Your task to perform on an android device: turn off location history Image 0: 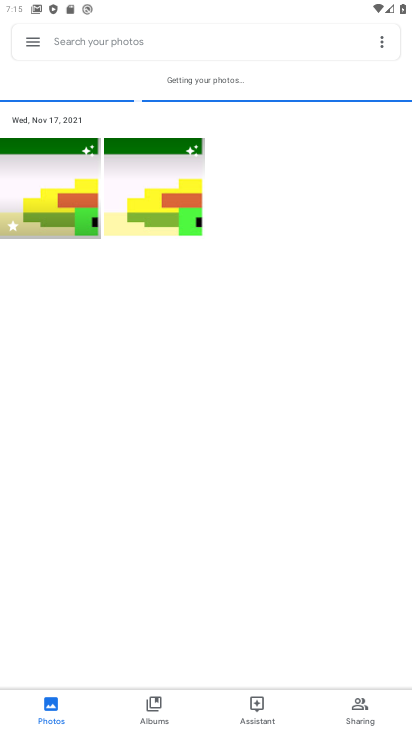
Step 0: press home button
Your task to perform on an android device: turn off location history Image 1: 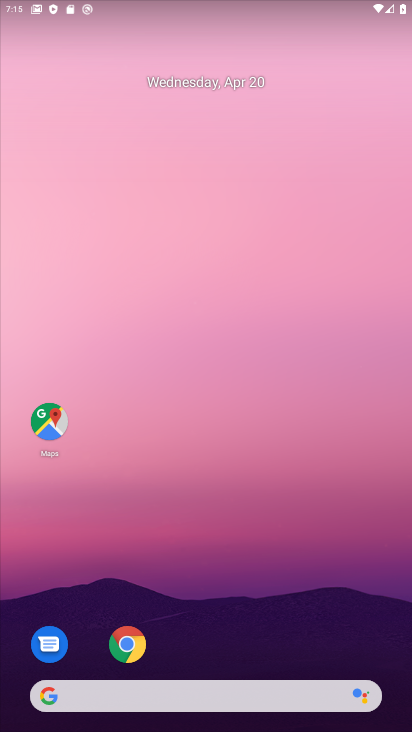
Step 1: drag from (306, 636) to (216, 44)
Your task to perform on an android device: turn off location history Image 2: 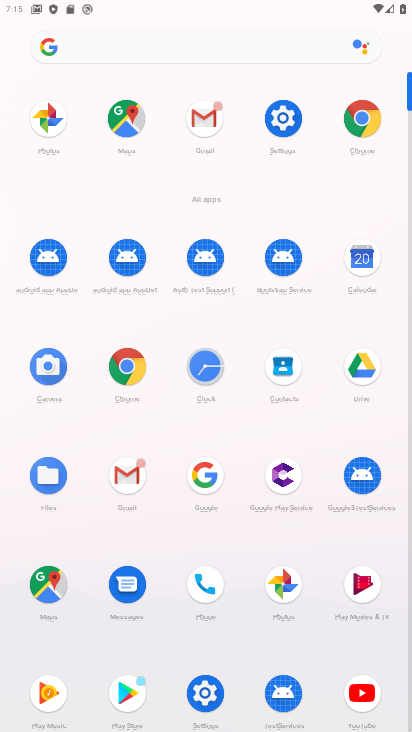
Step 2: click (286, 113)
Your task to perform on an android device: turn off location history Image 3: 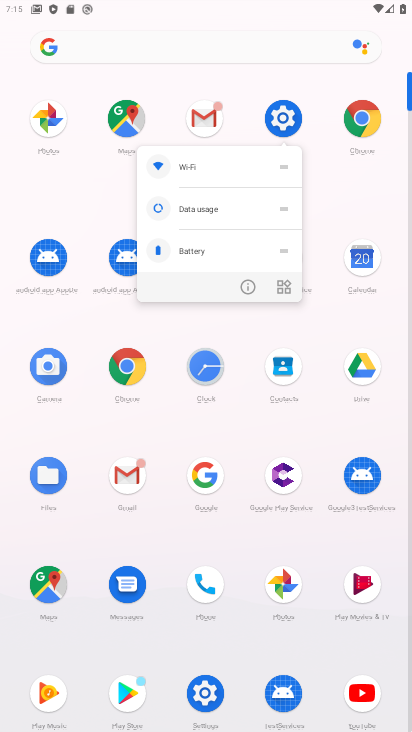
Step 3: click (287, 119)
Your task to perform on an android device: turn off location history Image 4: 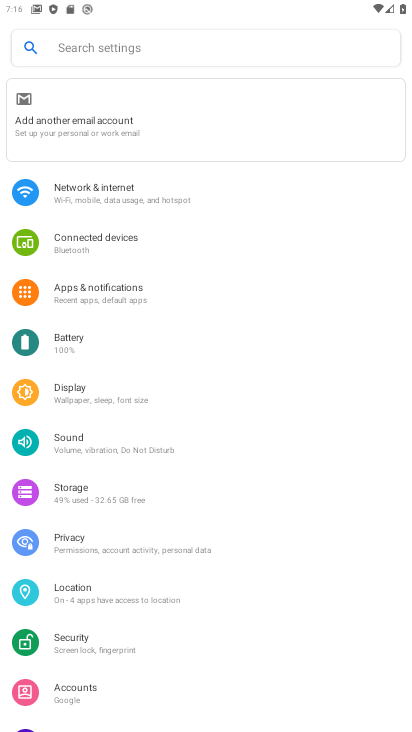
Step 4: click (128, 599)
Your task to perform on an android device: turn off location history Image 5: 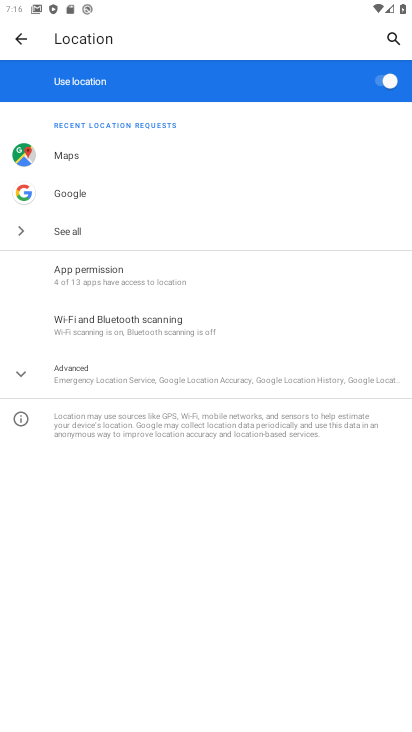
Step 5: click (16, 373)
Your task to perform on an android device: turn off location history Image 6: 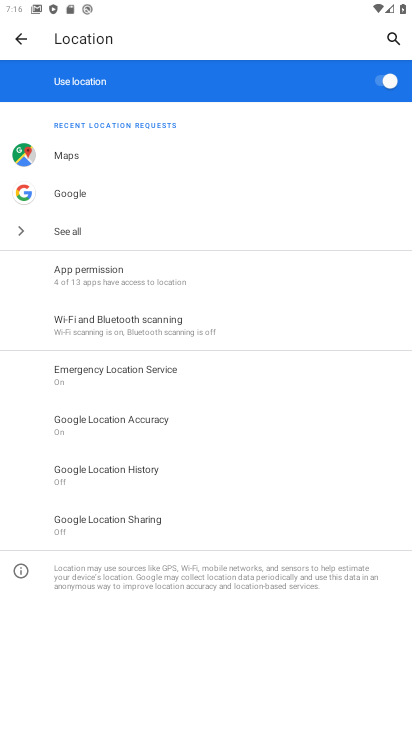
Step 6: click (116, 479)
Your task to perform on an android device: turn off location history Image 7: 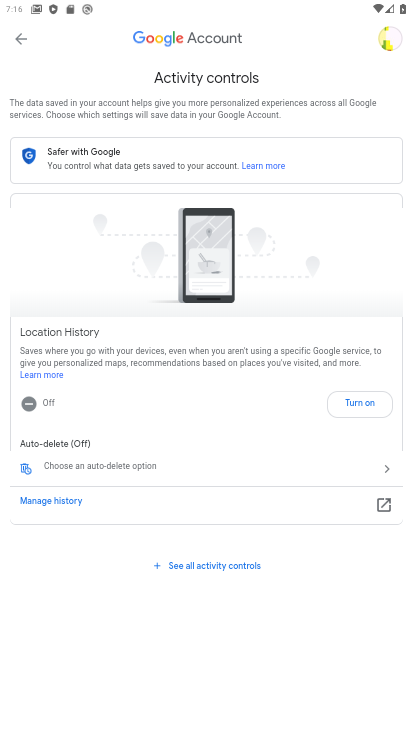
Step 7: click (355, 400)
Your task to perform on an android device: turn off location history Image 8: 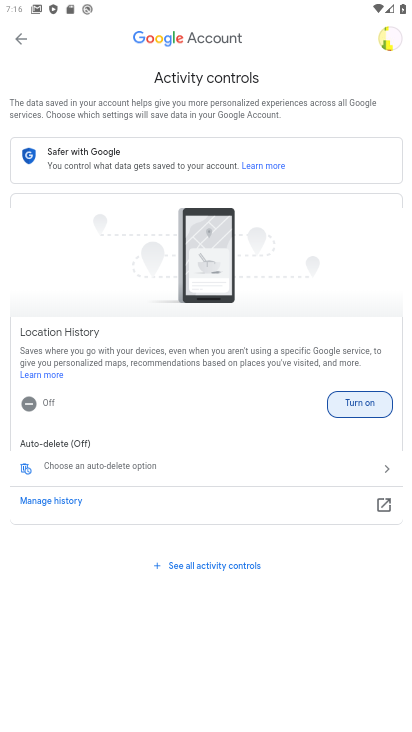
Step 8: click (359, 405)
Your task to perform on an android device: turn off location history Image 9: 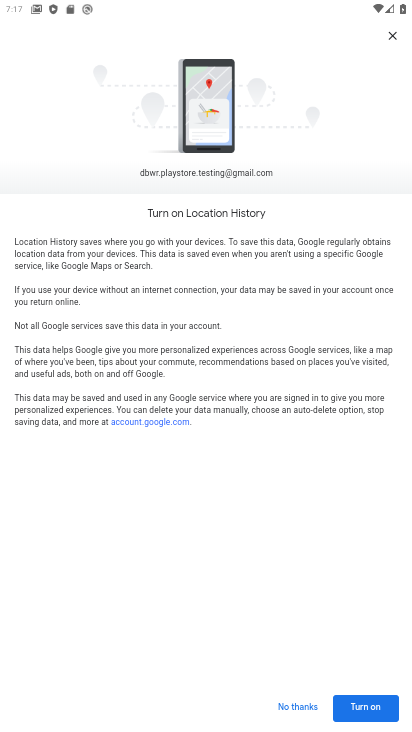
Step 9: task complete